Your task to perform on an android device: Go to Wikipedia Image 0: 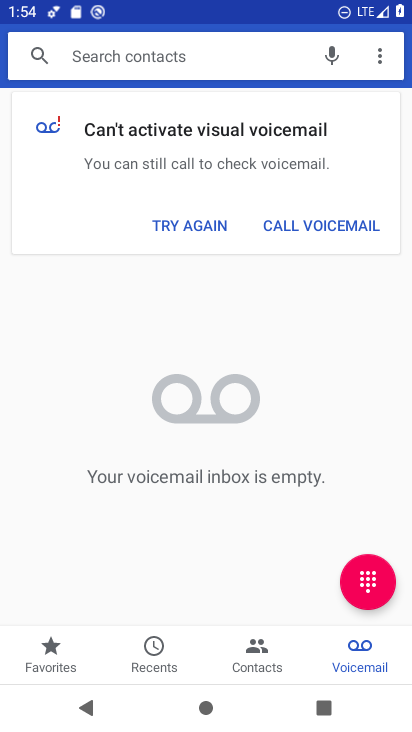
Step 0: press home button
Your task to perform on an android device: Go to Wikipedia Image 1: 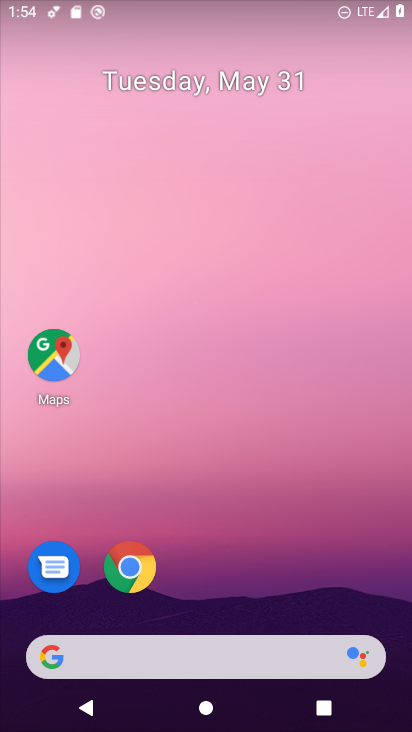
Step 1: click (133, 564)
Your task to perform on an android device: Go to Wikipedia Image 2: 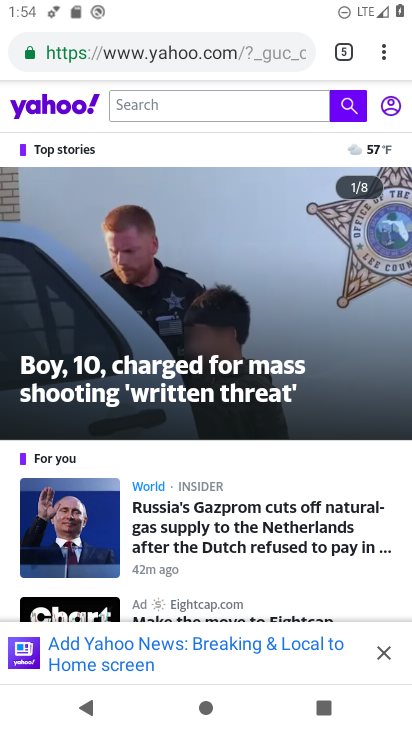
Step 2: click (338, 45)
Your task to perform on an android device: Go to Wikipedia Image 3: 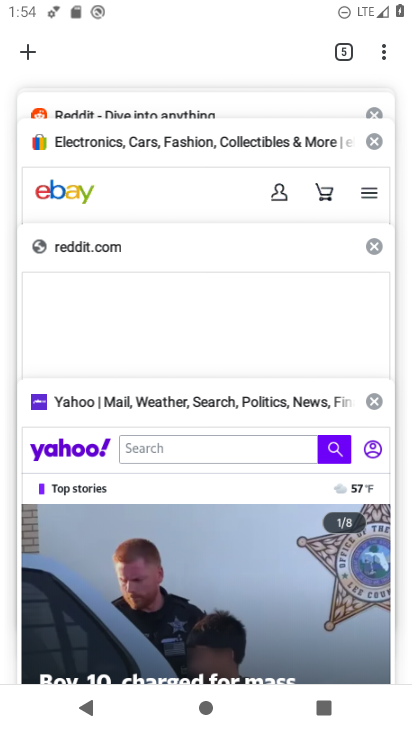
Step 3: click (28, 42)
Your task to perform on an android device: Go to Wikipedia Image 4: 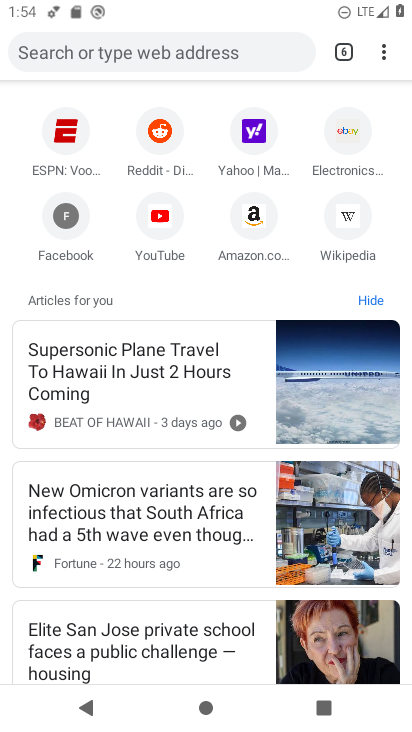
Step 4: click (132, 43)
Your task to perform on an android device: Go to Wikipedia Image 5: 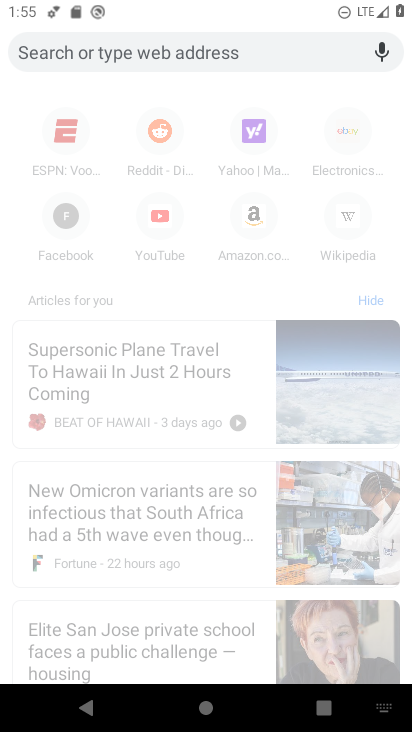
Step 5: type "Wikipedia"
Your task to perform on an android device: Go to Wikipedia Image 6: 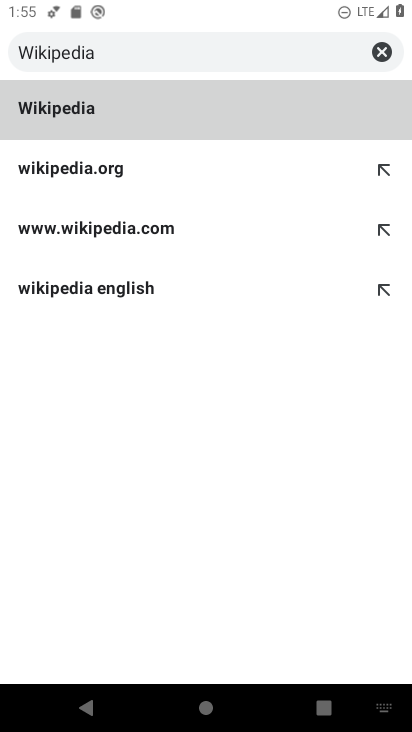
Step 6: click (133, 106)
Your task to perform on an android device: Go to Wikipedia Image 7: 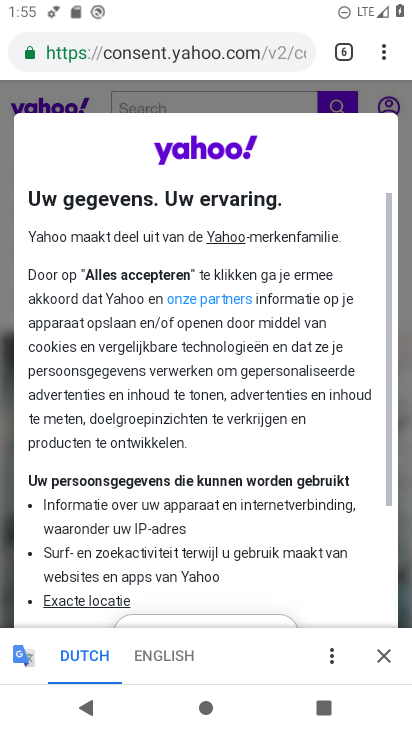
Step 7: click (349, 42)
Your task to perform on an android device: Go to Wikipedia Image 8: 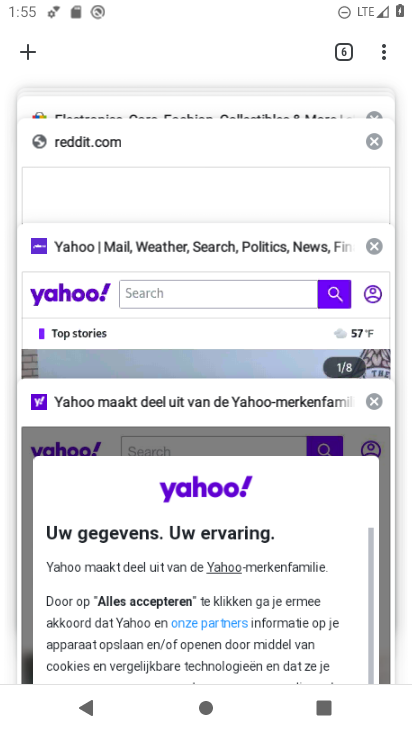
Step 8: task complete